Your task to perform on an android device: open a new tab in the chrome app Image 0: 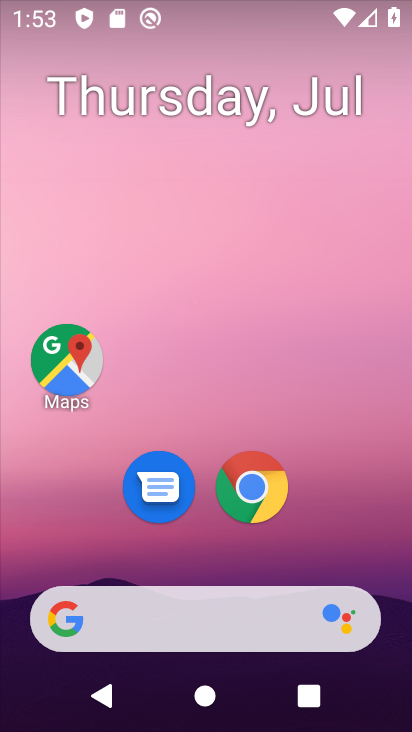
Step 0: drag from (378, 547) to (370, 205)
Your task to perform on an android device: open a new tab in the chrome app Image 1: 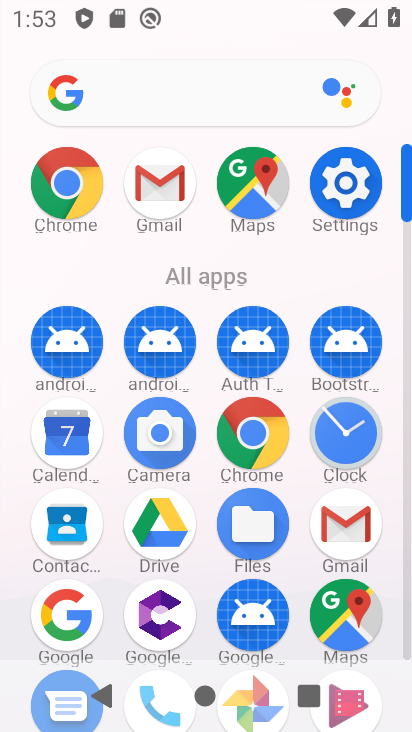
Step 1: click (263, 441)
Your task to perform on an android device: open a new tab in the chrome app Image 2: 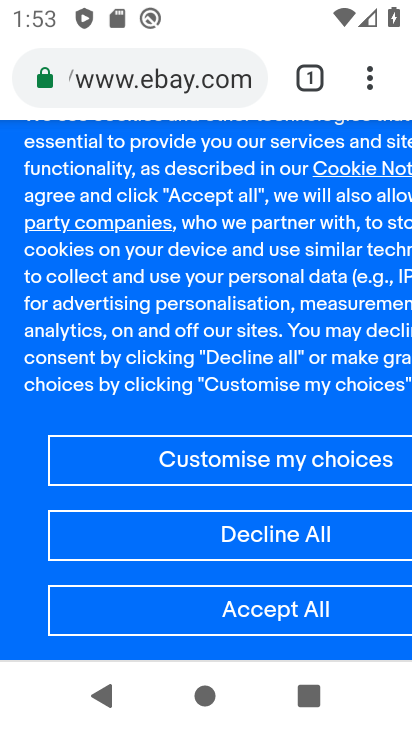
Step 2: click (369, 85)
Your task to perform on an android device: open a new tab in the chrome app Image 3: 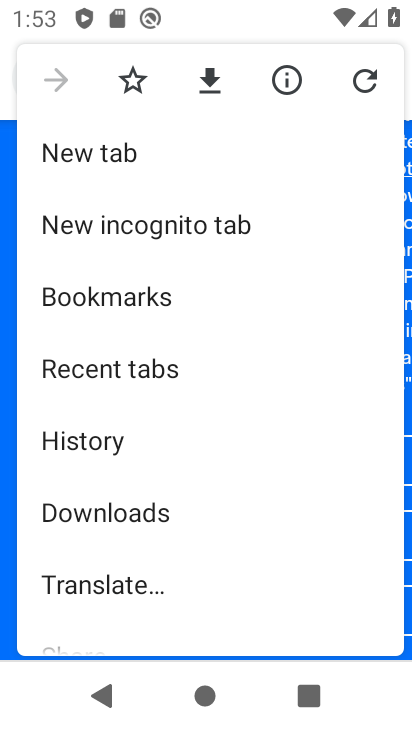
Step 3: click (119, 150)
Your task to perform on an android device: open a new tab in the chrome app Image 4: 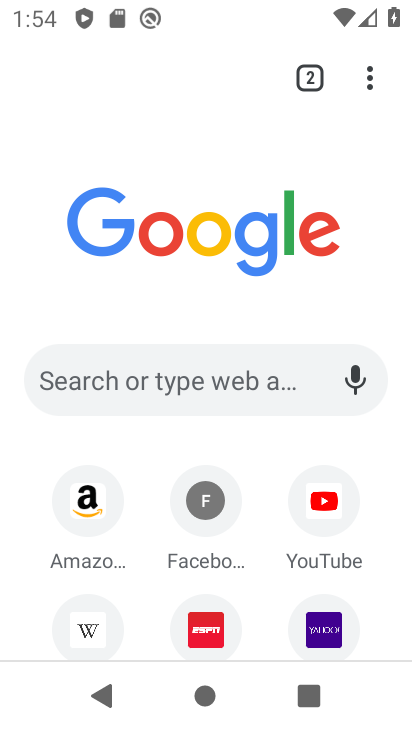
Step 4: task complete